Your task to perform on an android device: Open the map Image 0: 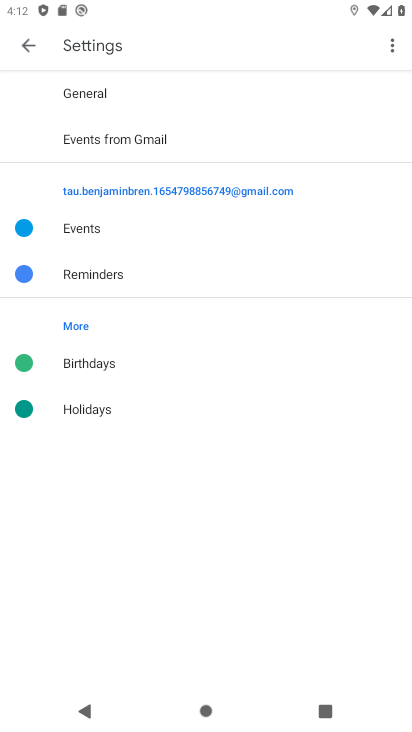
Step 0: press home button
Your task to perform on an android device: Open the map Image 1: 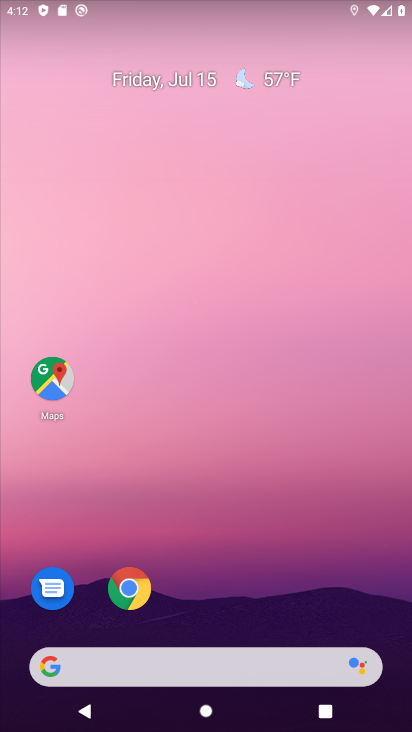
Step 1: click (53, 379)
Your task to perform on an android device: Open the map Image 2: 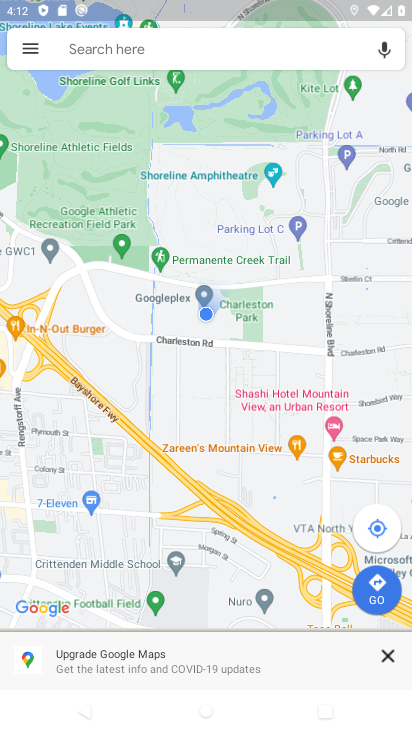
Step 2: task complete